Your task to perform on an android device: Open maps Image 0: 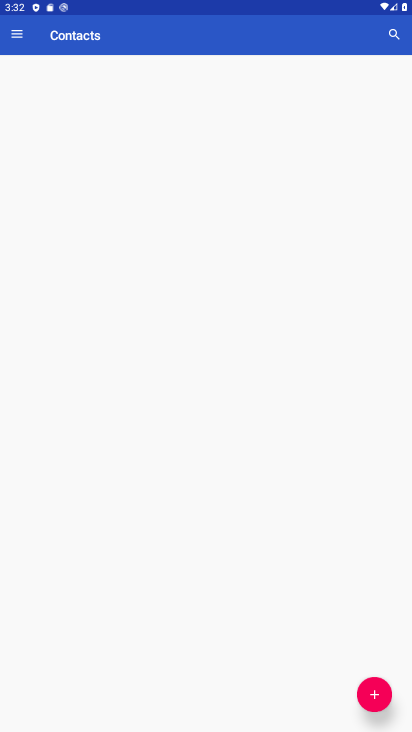
Step 0: press home button
Your task to perform on an android device: Open maps Image 1: 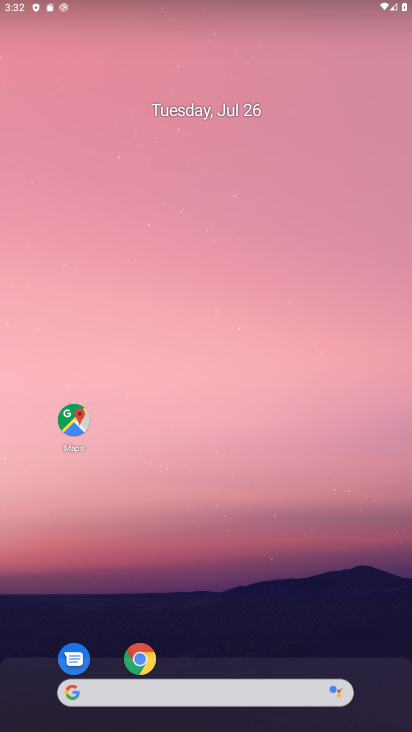
Step 1: drag from (369, 633) to (274, 61)
Your task to perform on an android device: Open maps Image 2: 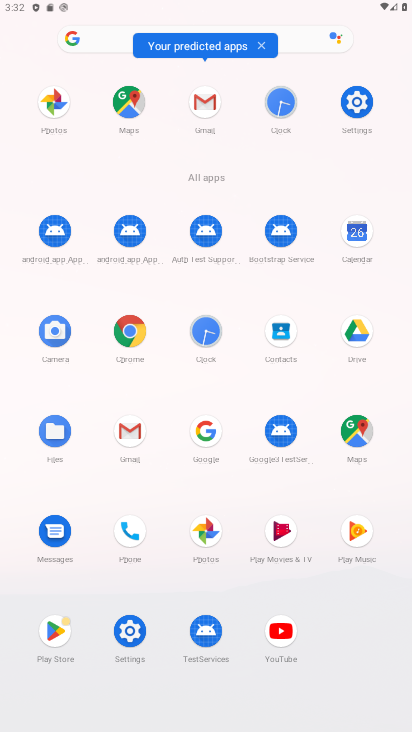
Step 2: click (125, 111)
Your task to perform on an android device: Open maps Image 3: 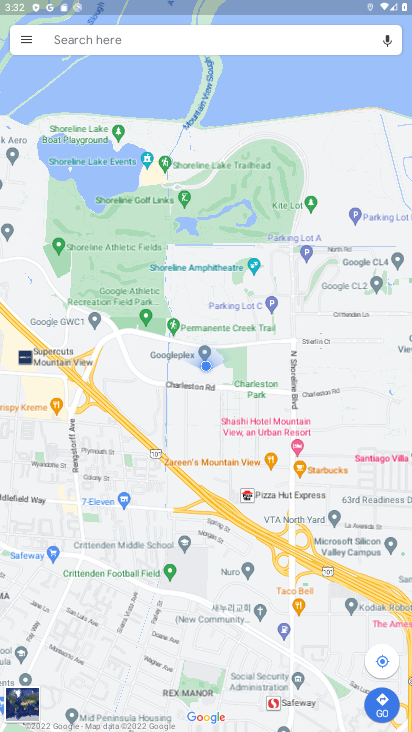
Step 3: task complete